Your task to perform on an android device: stop showing notifications on the lock screen Image 0: 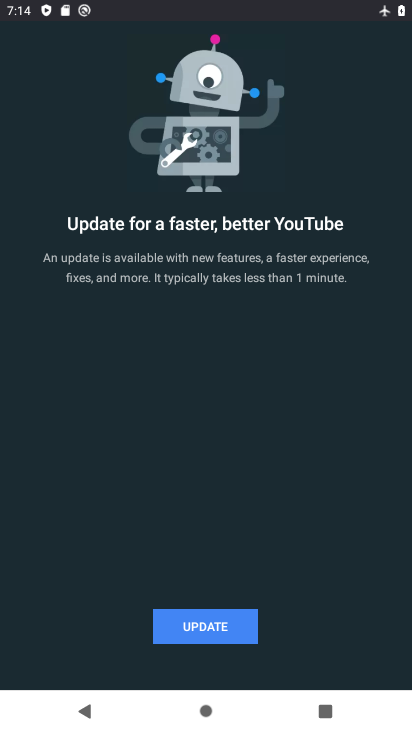
Step 0: press home button
Your task to perform on an android device: stop showing notifications on the lock screen Image 1: 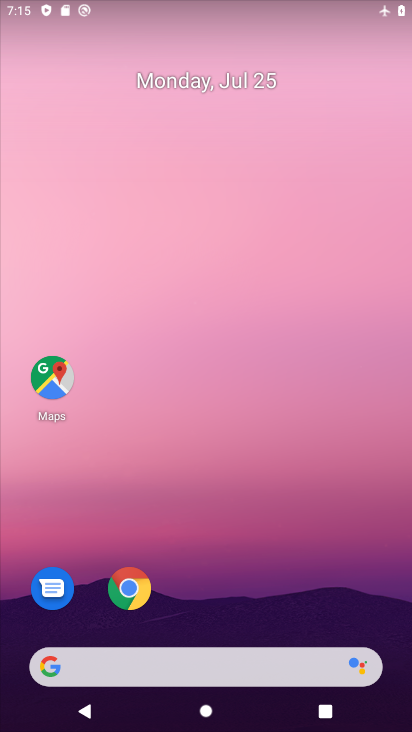
Step 1: drag from (286, 577) to (345, 260)
Your task to perform on an android device: stop showing notifications on the lock screen Image 2: 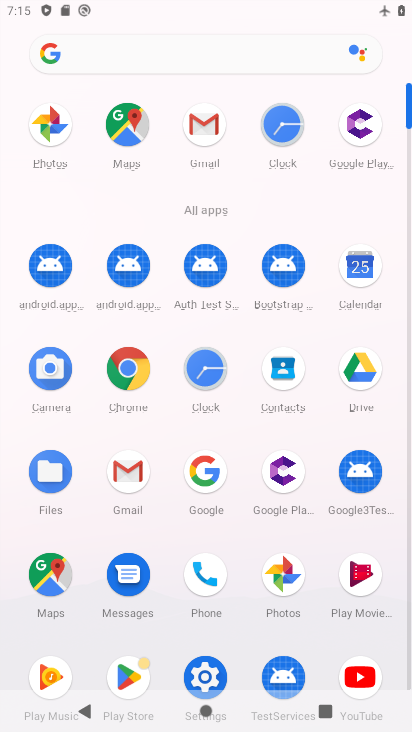
Step 2: click (205, 663)
Your task to perform on an android device: stop showing notifications on the lock screen Image 3: 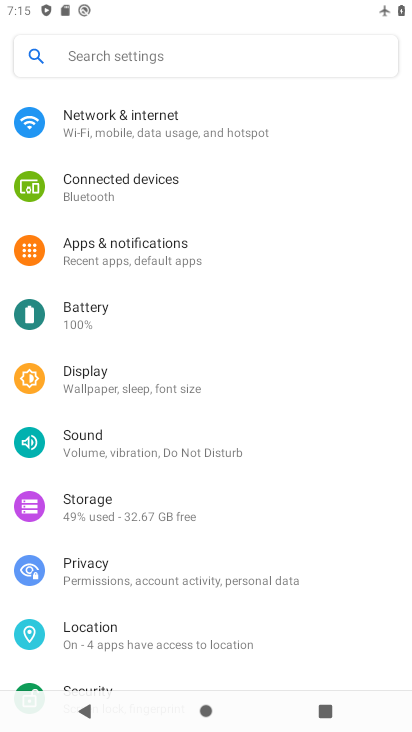
Step 3: task complete